Your task to perform on an android device: Play the last video I watched on Youtube Image 0: 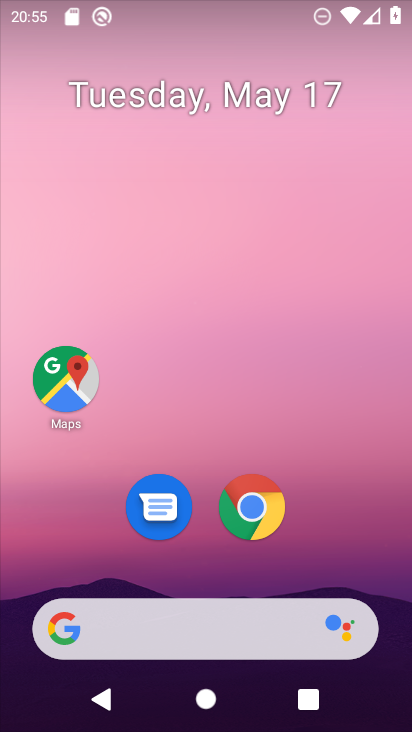
Step 0: drag from (389, 605) to (365, 8)
Your task to perform on an android device: Play the last video I watched on Youtube Image 1: 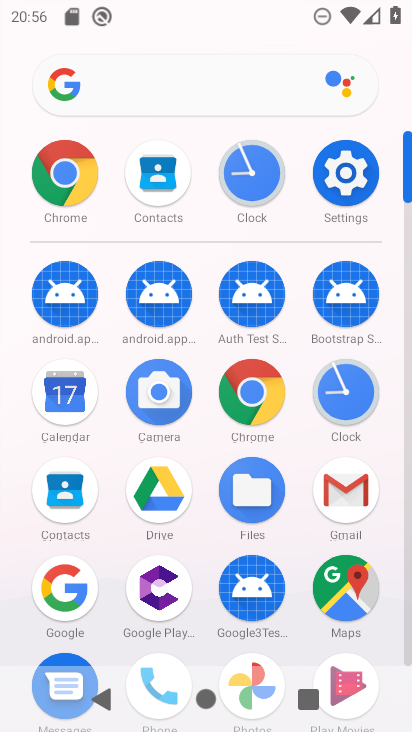
Step 1: click (405, 596)
Your task to perform on an android device: Play the last video I watched on Youtube Image 2: 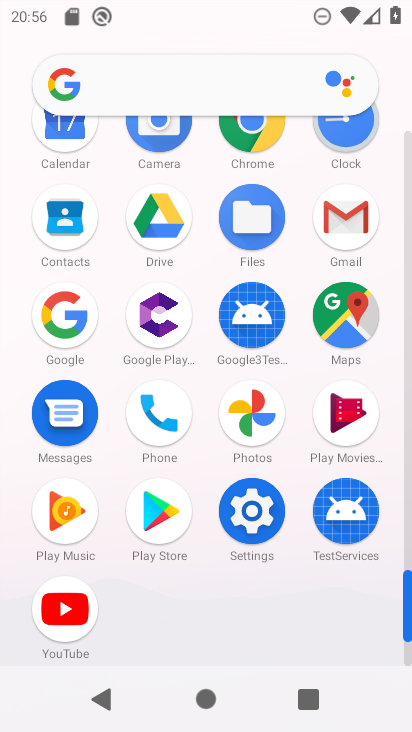
Step 2: click (66, 622)
Your task to perform on an android device: Play the last video I watched on Youtube Image 3: 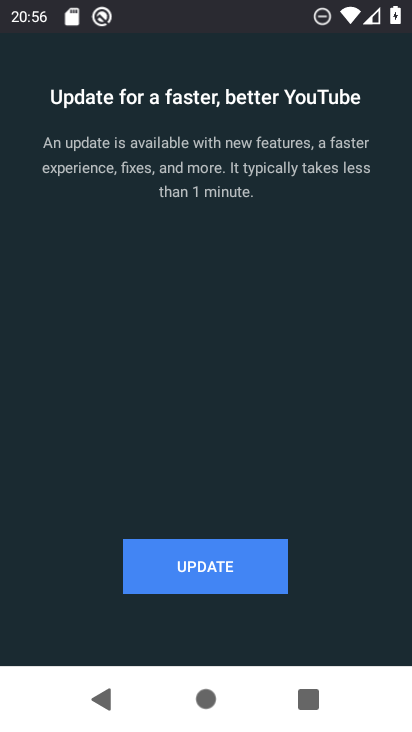
Step 3: click (141, 572)
Your task to perform on an android device: Play the last video I watched on Youtube Image 4: 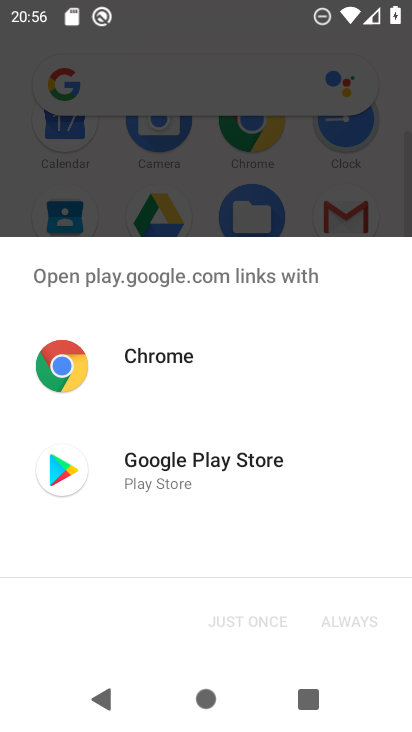
Step 4: click (172, 476)
Your task to perform on an android device: Play the last video I watched on Youtube Image 5: 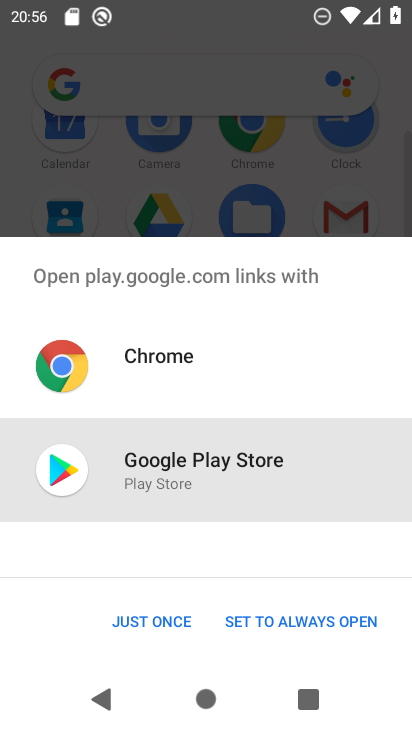
Step 5: click (129, 618)
Your task to perform on an android device: Play the last video I watched on Youtube Image 6: 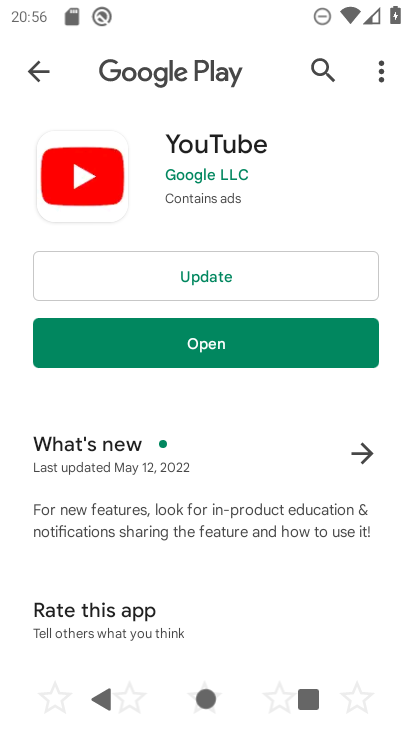
Step 6: click (173, 279)
Your task to perform on an android device: Play the last video I watched on Youtube Image 7: 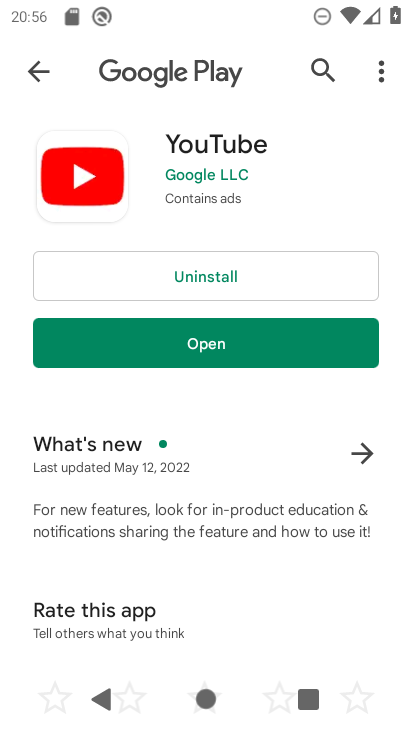
Step 7: click (254, 348)
Your task to perform on an android device: Play the last video I watched on Youtube Image 8: 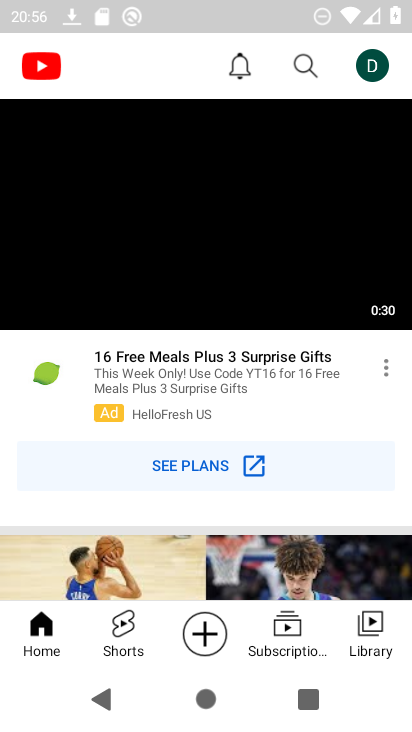
Step 8: click (369, 634)
Your task to perform on an android device: Play the last video I watched on Youtube Image 9: 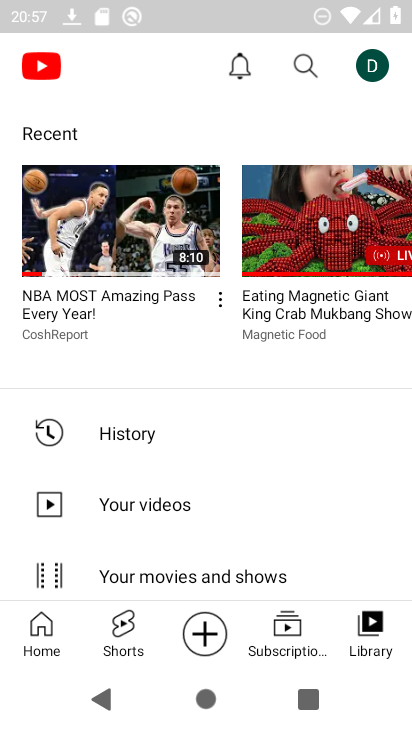
Step 9: click (119, 438)
Your task to perform on an android device: Play the last video I watched on Youtube Image 10: 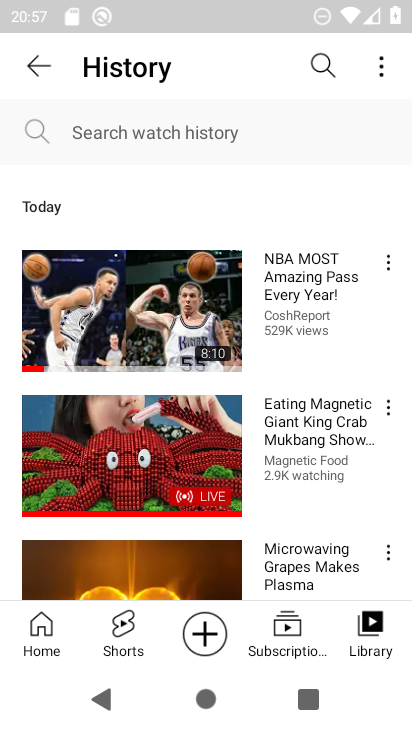
Step 10: click (138, 308)
Your task to perform on an android device: Play the last video I watched on Youtube Image 11: 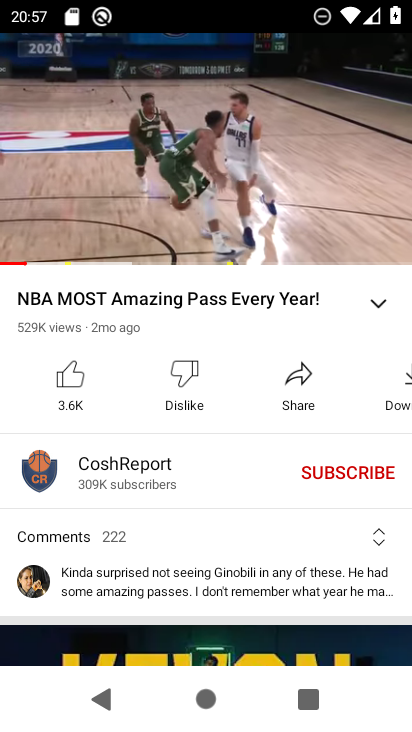
Step 11: click (206, 185)
Your task to perform on an android device: Play the last video I watched on Youtube Image 12: 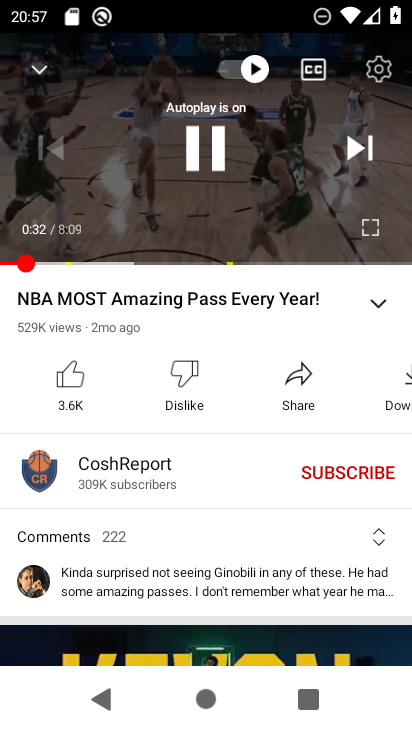
Step 12: click (200, 153)
Your task to perform on an android device: Play the last video I watched on Youtube Image 13: 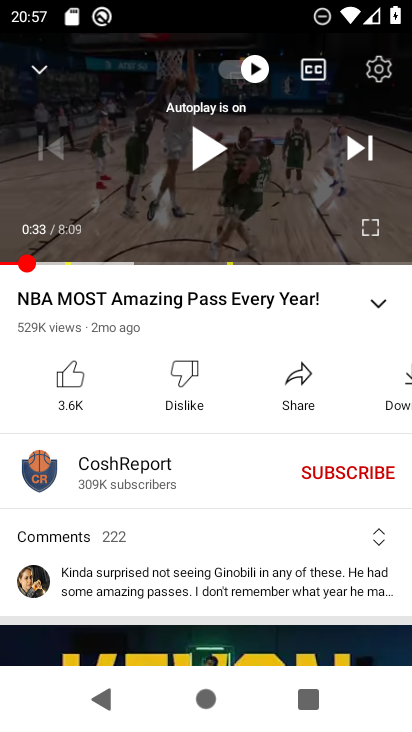
Step 13: task complete